Your task to perform on an android device: Open maps Image 0: 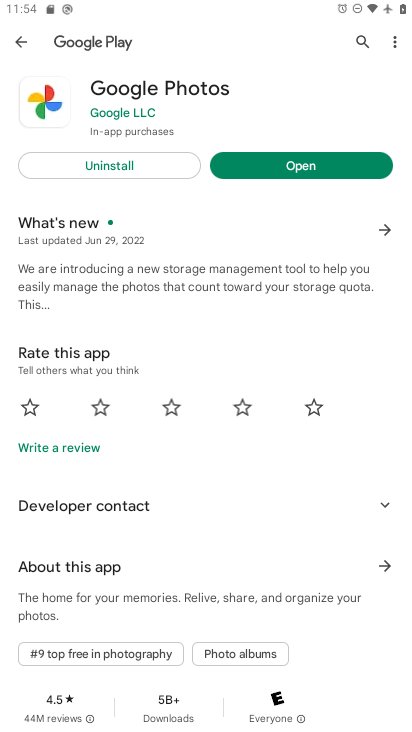
Step 0: press home button
Your task to perform on an android device: Open maps Image 1: 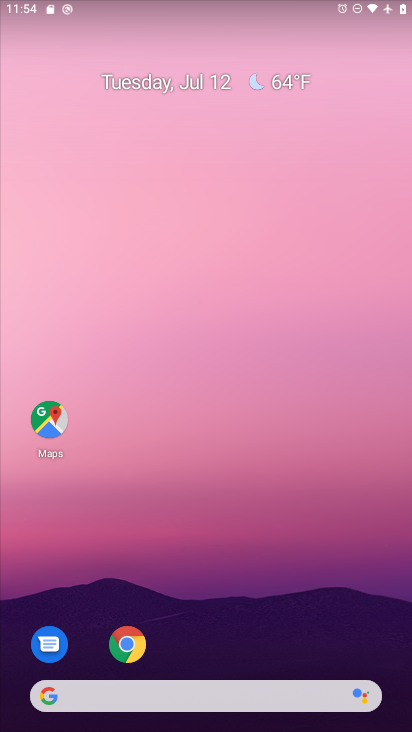
Step 1: click (54, 424)
Your task to perform on an android device: Open maps Image 2: 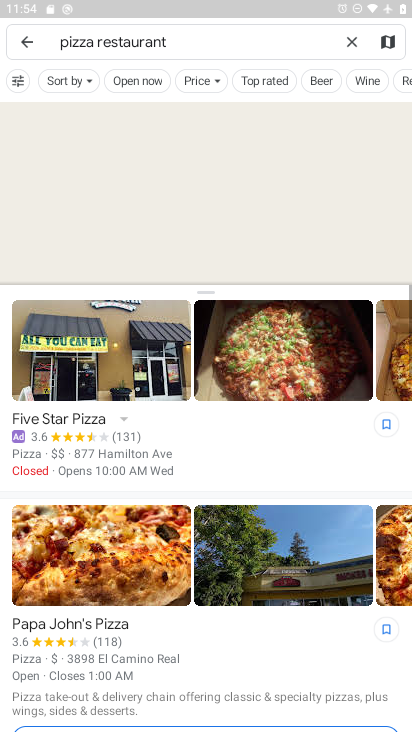
Step 2: task complete